Your task to perform on an android device: turn off location Image 0: 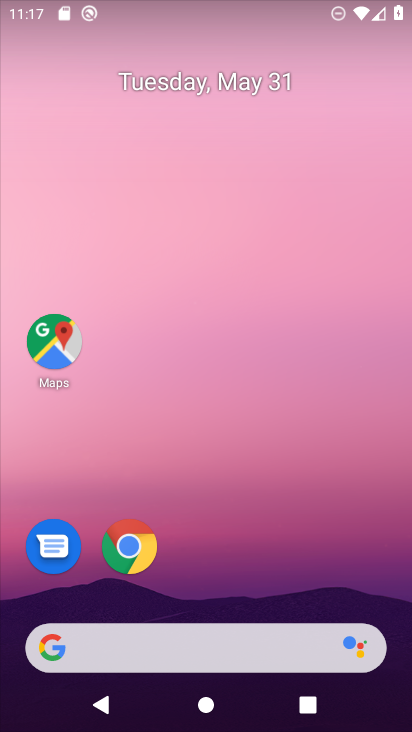
Step 0: drag from (204, 668) to (250, 3)
Your task to perform on an android device: turn off location Image 1: 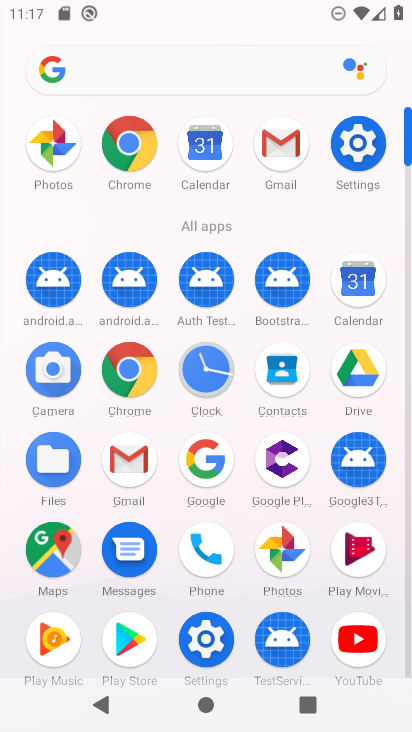
Step 1: click (374, 158)
Your task to perform on an android device: turn off location Image 2: 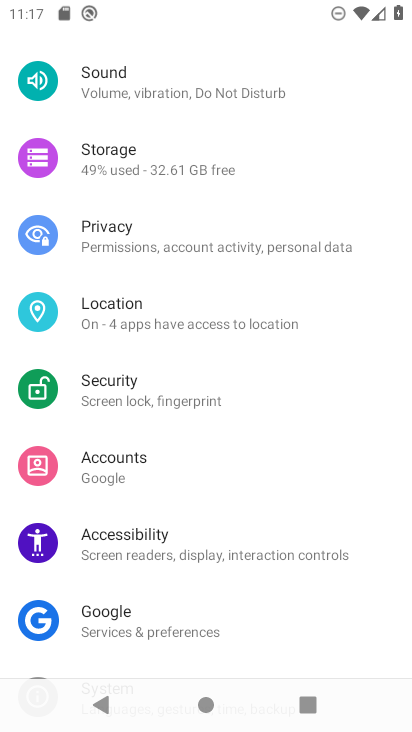
Step 2: click (157, 315)
Your task to perform on an android device: turn off location Image 3: 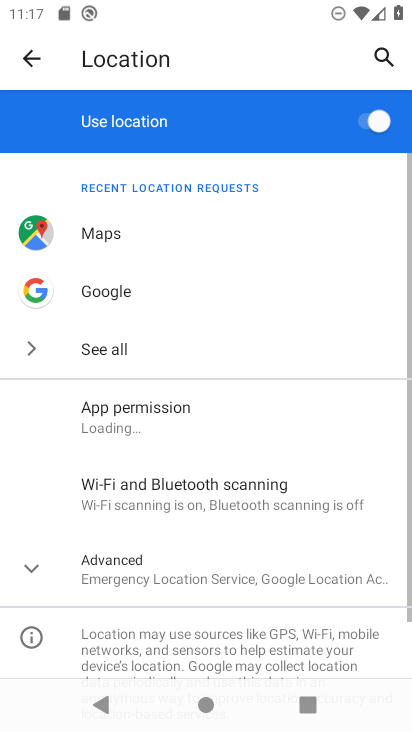
Step 3: click (379, 120)
Your task to perform on an android device: turn off location Image 4: 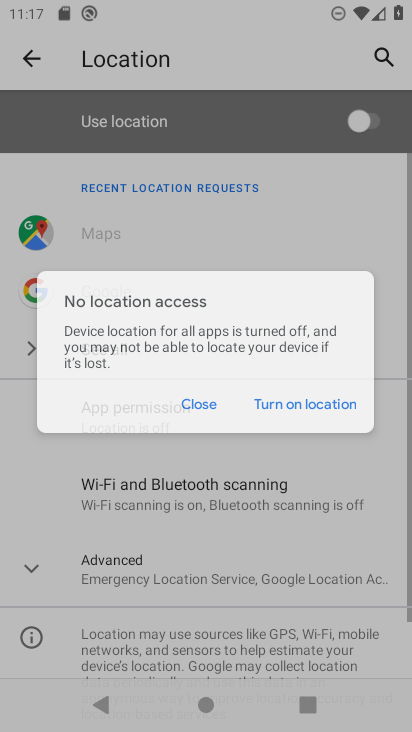
Step 4: task complete